Your task to perform on an android device: toggle pop-ups in chrome Image 0: 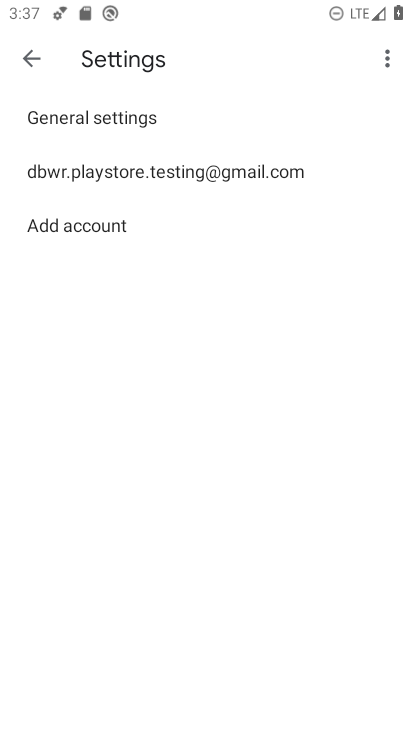
Step 0: press home button
Your task to perform on an android device: toggle pop-ups in chrome Image 1: 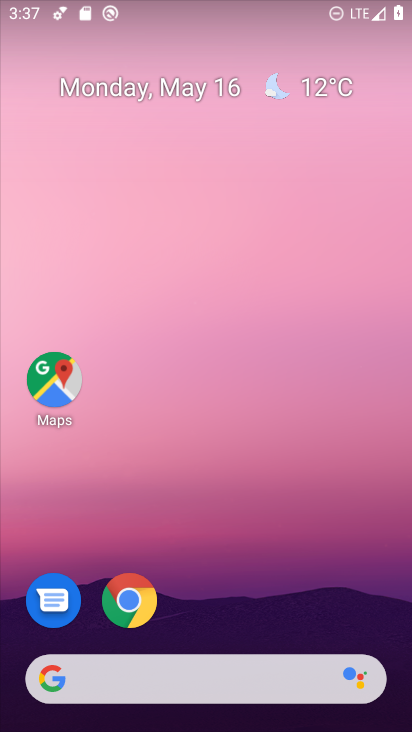
Step 1: drag from (271, 571) to (321, 149)
Your task to perform on an android device: toggle pop-ups in chrome Image 2: 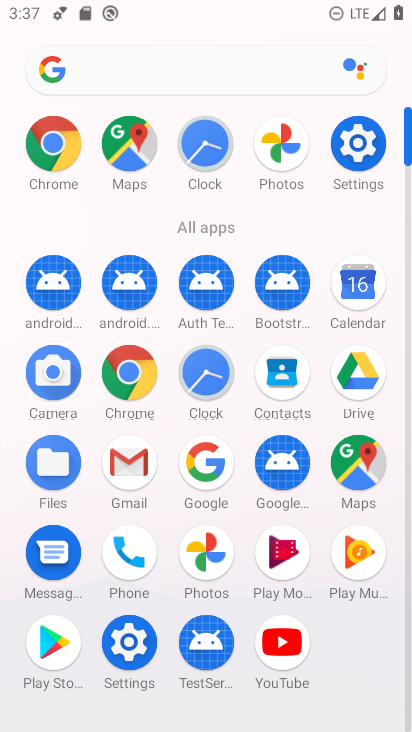
Step 2: click (138, 381)
Your task to perform on an android device: toggle pop-ups in chrome Image 3: 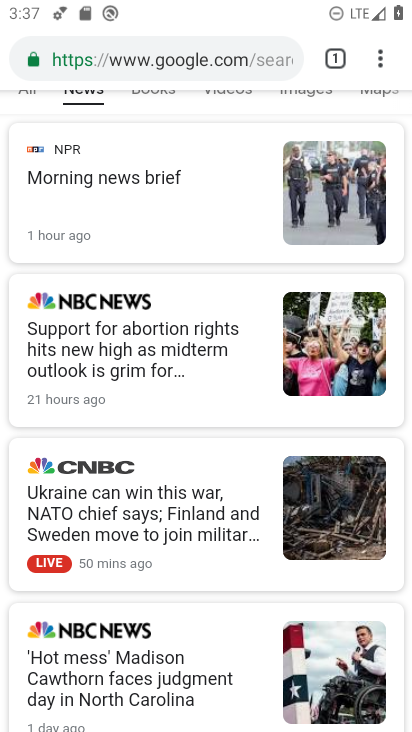
Step 3: drag from (383, 49) to (203, 651)
Your task to perform on an android device: toggle pop-ups in chrome Image 4: 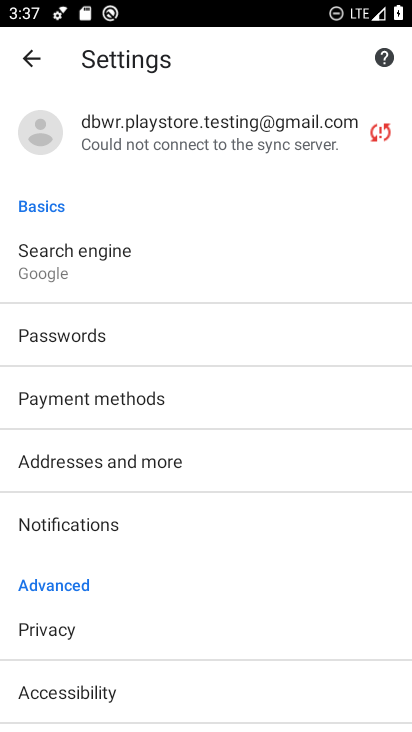
Step 4: drag from (138, 545) to (264, 117)
Your task to perform on an android device: toggle pop-ups in chrome Image 5: 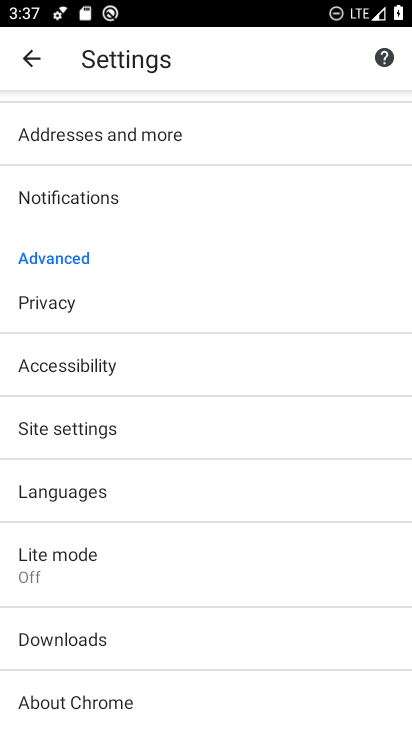
Step 5: click (110, 433)
Your task to perform on an android device: toggle pop-ups in chrome Image 6: 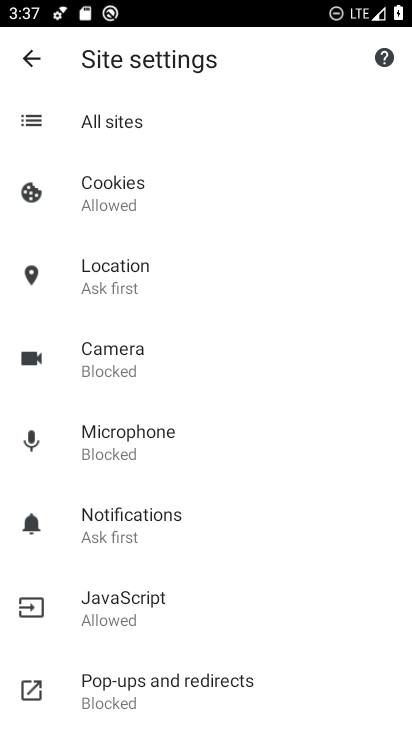
Step 6: click (184, 671)
Your task to perform on an android device: toggle pop-ups in chrome Image 7: 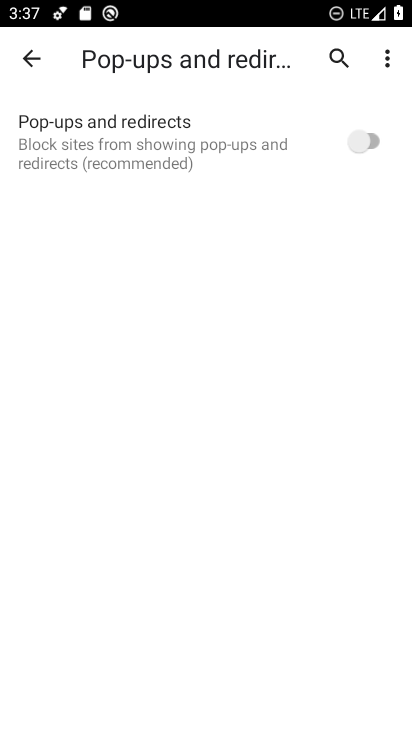
Step 7: click (368, 138)
Your task to perform on an android device: toggle pop-ups in chrome Image 8: 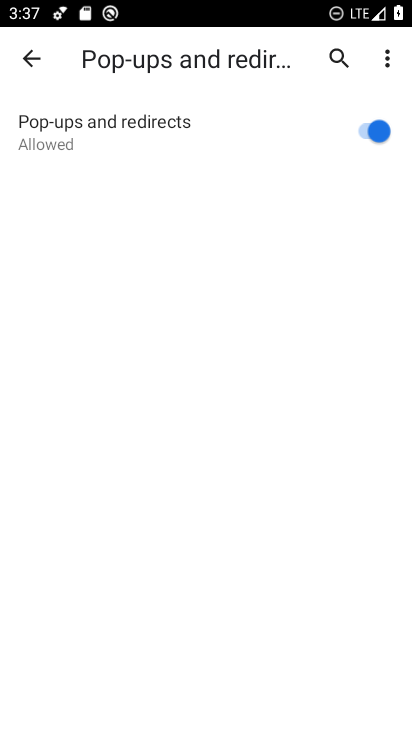
Step 8: task complete